Your task to perform on an android device: Show the shopping cart on amazon. Image 0: 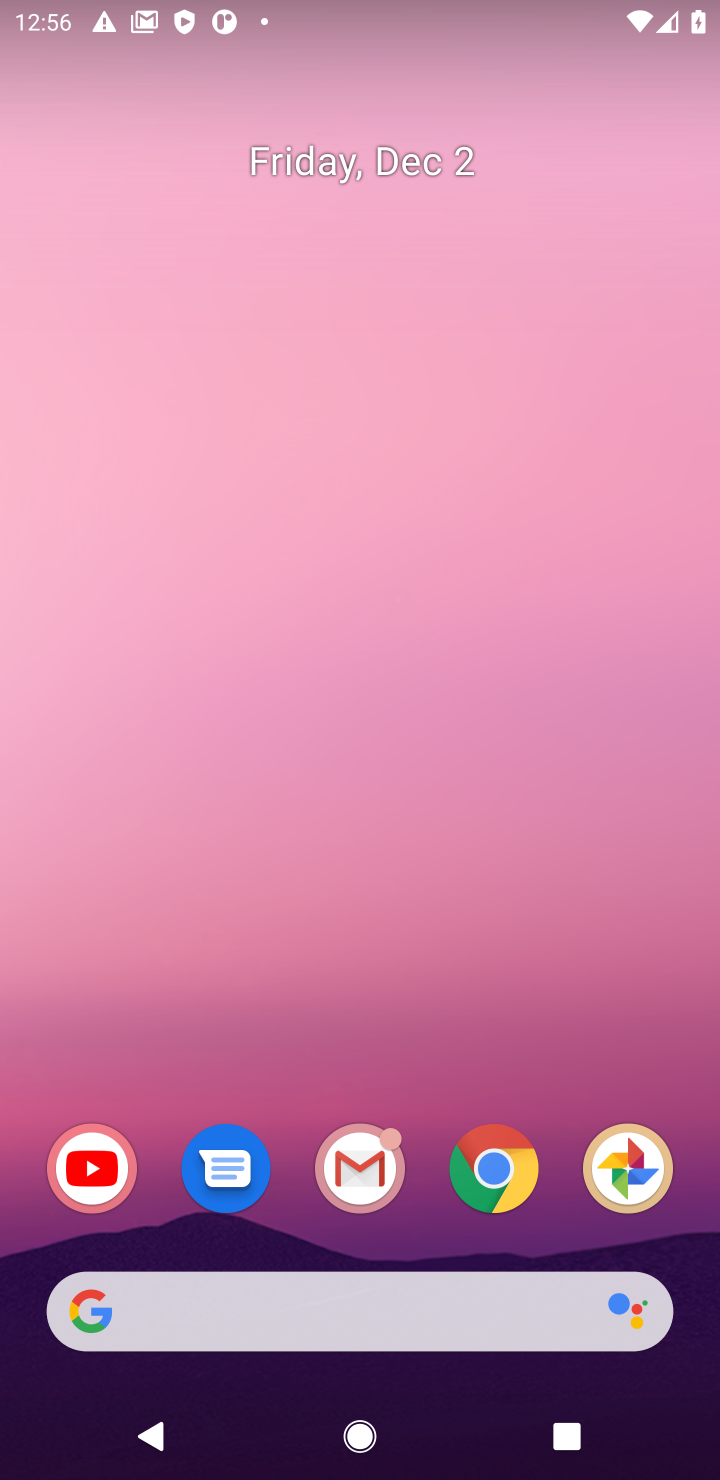
Step 0: click (495, 1171)
Your task to perform on an android device: Show the shopping cart on amazon. Image 1: 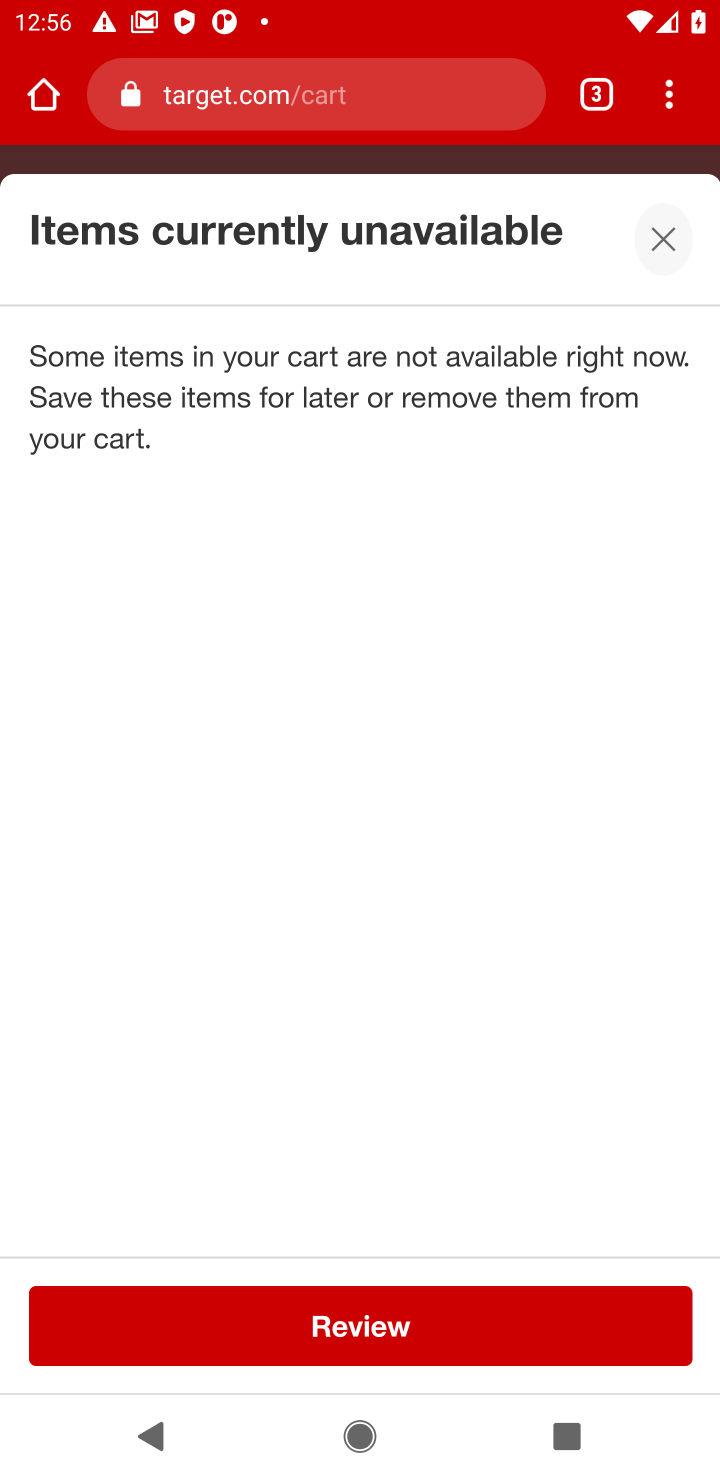
Step 1: click (263, 102)
Your task to perform on an android device: Show the shopping cart on amazon. Image 2: 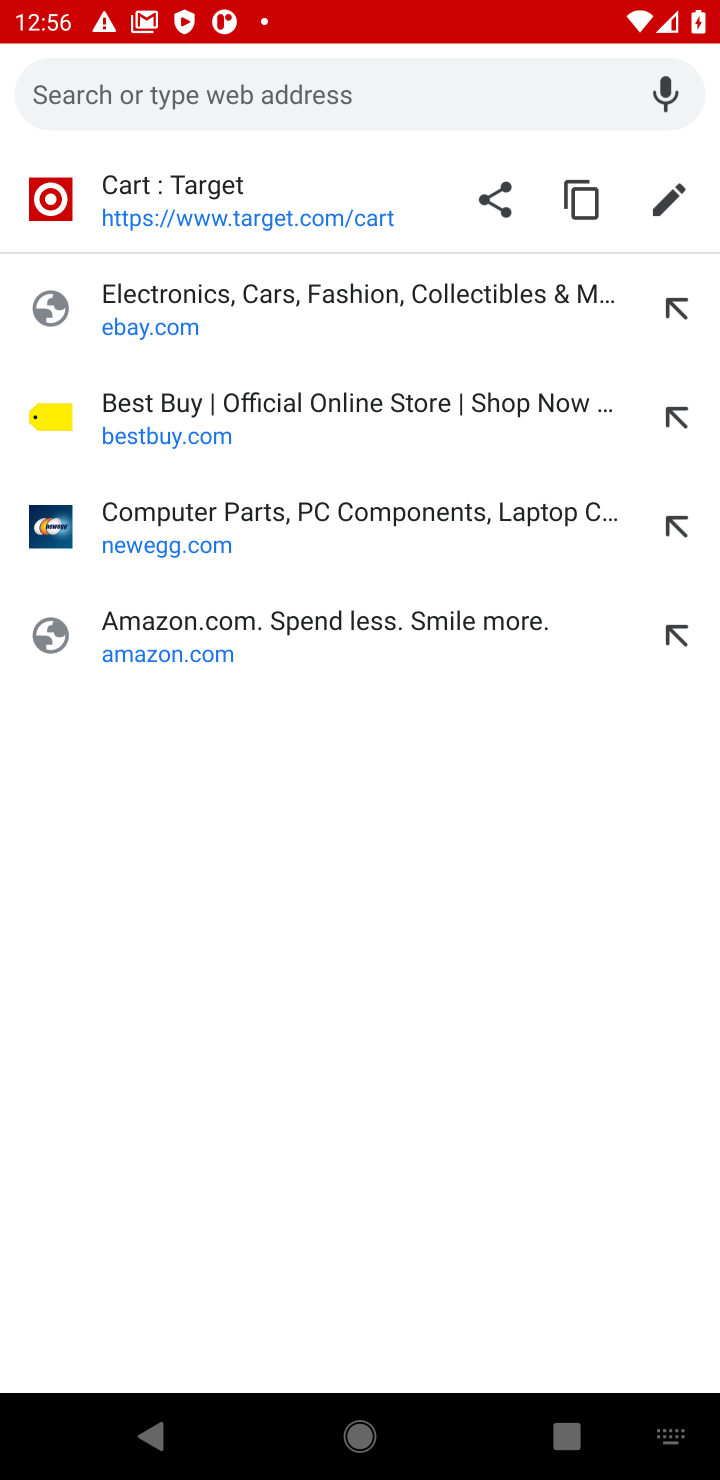
Step 2: click (129, 653)
Your task to perform on an android device: Show the shopping cart on amazon. Image 3: 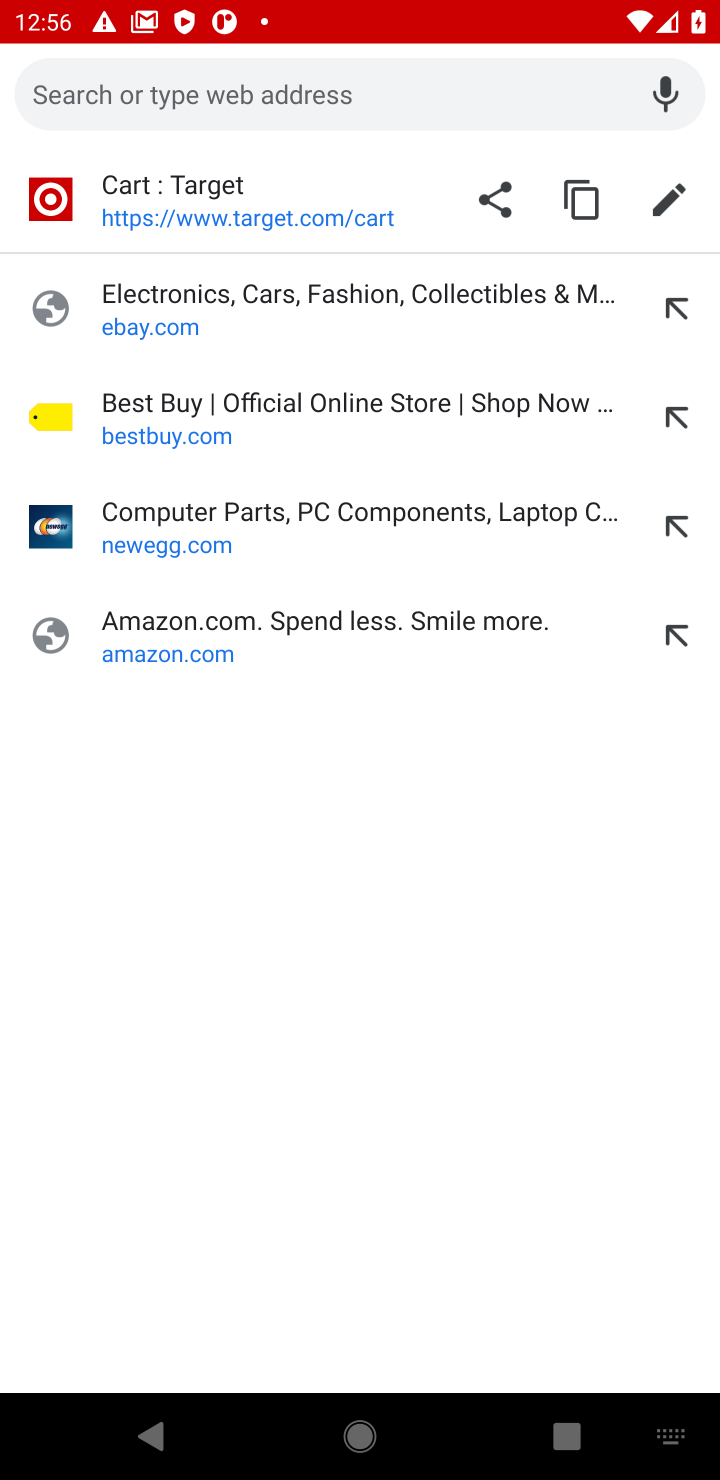
Step 3: click (146, 638)
Your task to perform on an android device: Show the shopping cart on amazon. Image 4: 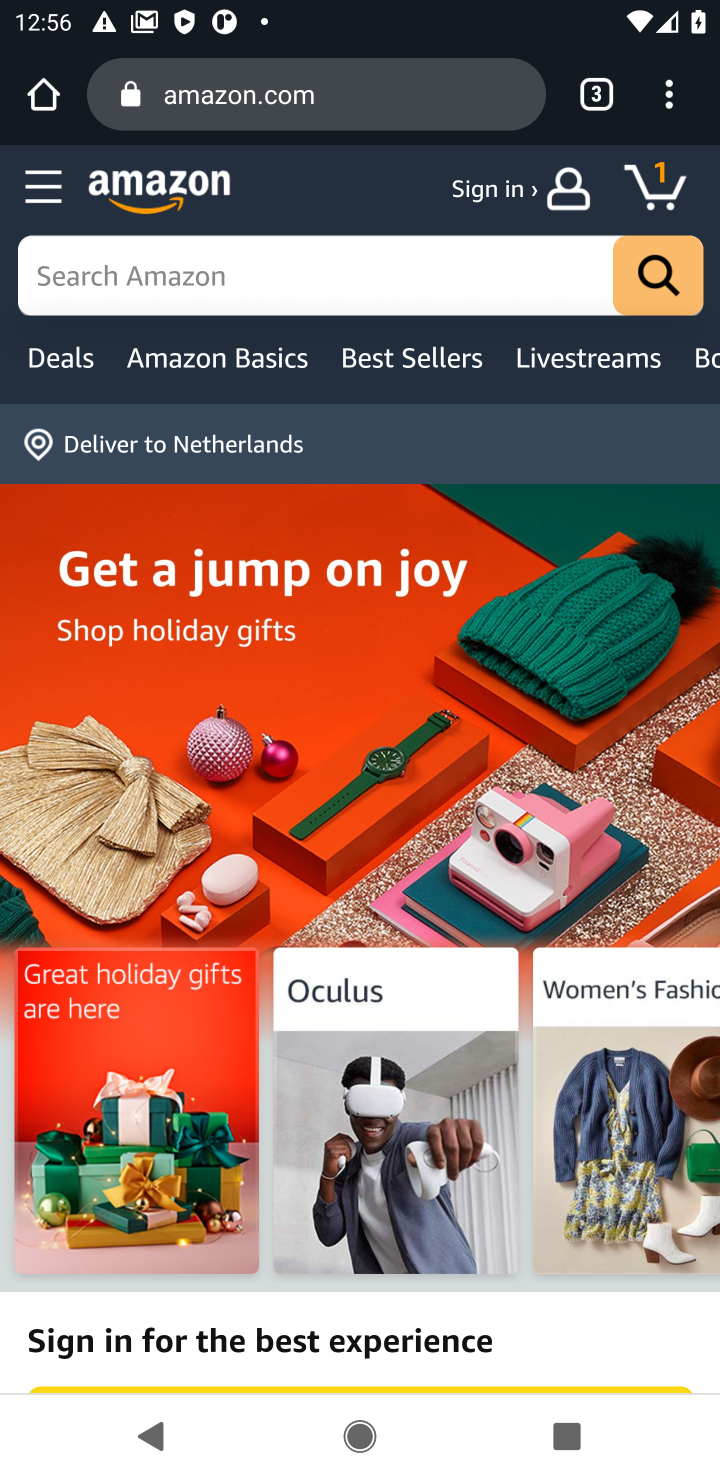
Step 4: click (663, 185)
Your task to perform on an android device: Show the shopping cart on amazon. Image 5: 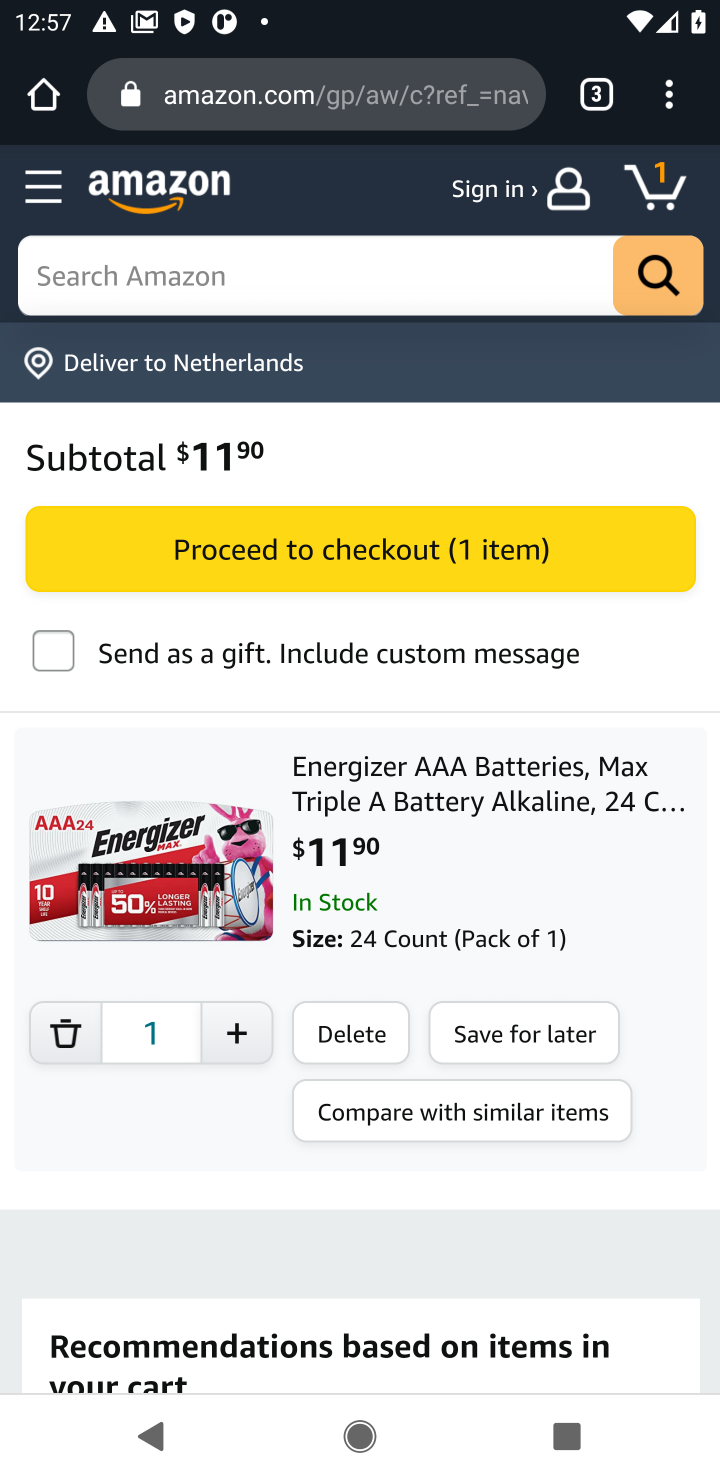
Step 5: task complete